Your task to perform on an android device: change your default location settings in chrome Image 0: 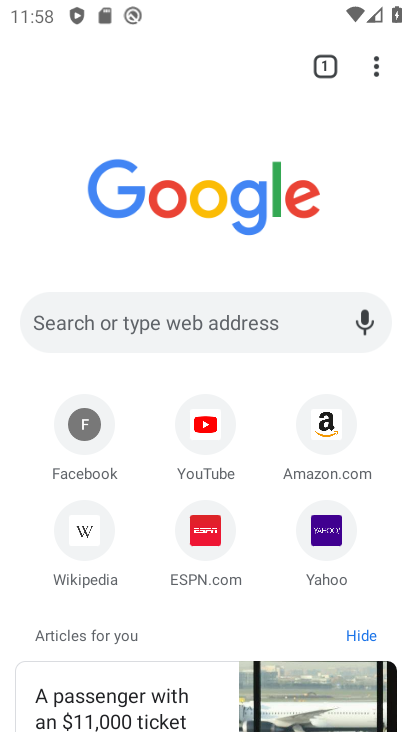
Step 0: click (374, 70)
Your task to perform on an android device: change your default location settings in chrome Image 1: 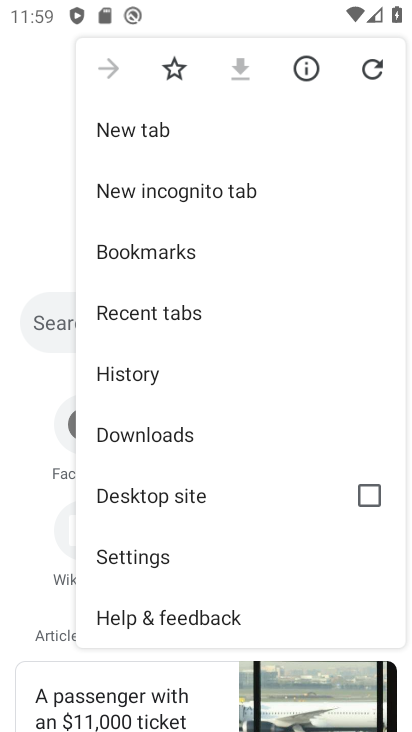
Step 1: click (160, 556)
Your task to perform on an android device: change your default location settings in chrome Image 2: 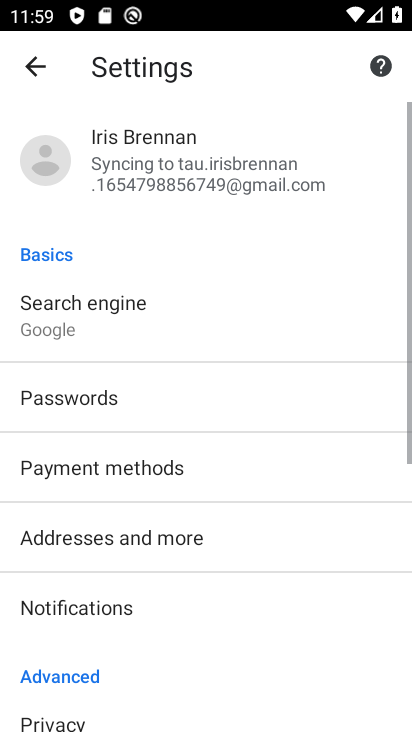
Step 2: drag from (157, 544) to (165, 214)
Your task to perform on an android device: change your default location settings in chrome Image 3: 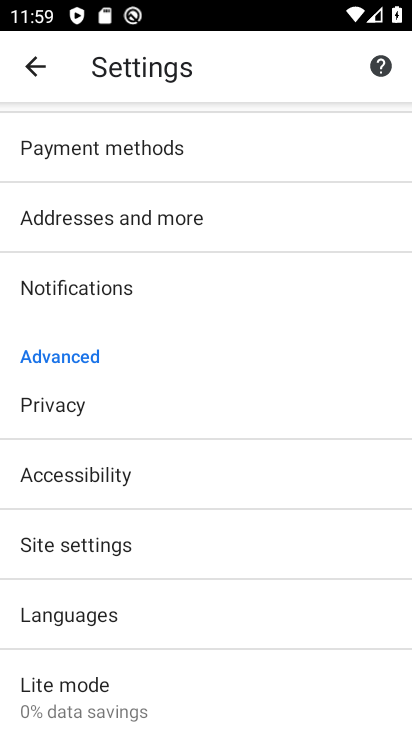
Step 3: click (102, 540)
Your task to perform on an android device: change your default location settings in chrome Image 4: 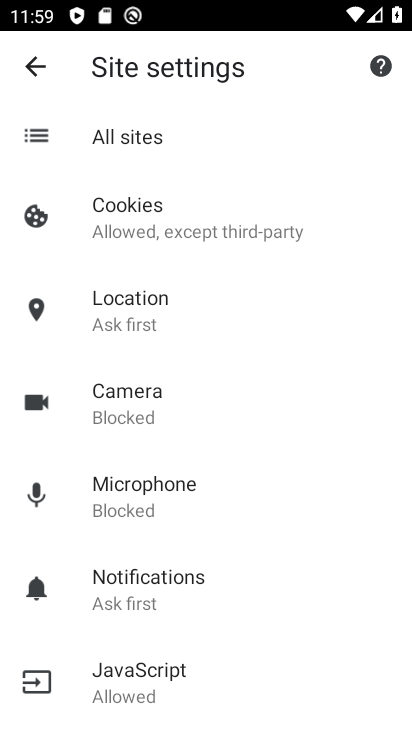
Step 4: click (122, 318)
Your task to perform on an android device: change your default location settings in chrome Image 5: 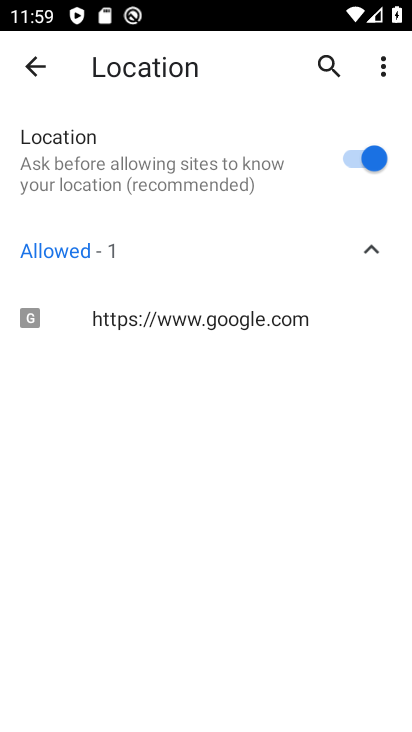
Step 5: click (358, 160)
Your task to perform on an android device: change your default location settings in chrome Image 6: 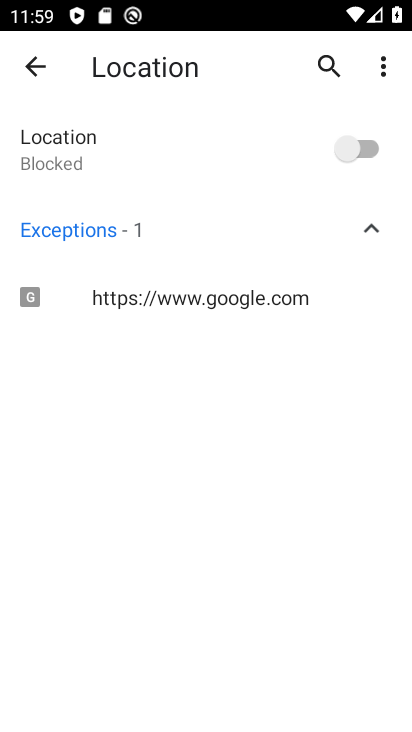
Step 6: task complete